Your task to perform on an android device: Show the shopping cart on costco. Search for duracell triple a on costco, select the first entry, add it to the cart, then select checkout. Image 0: 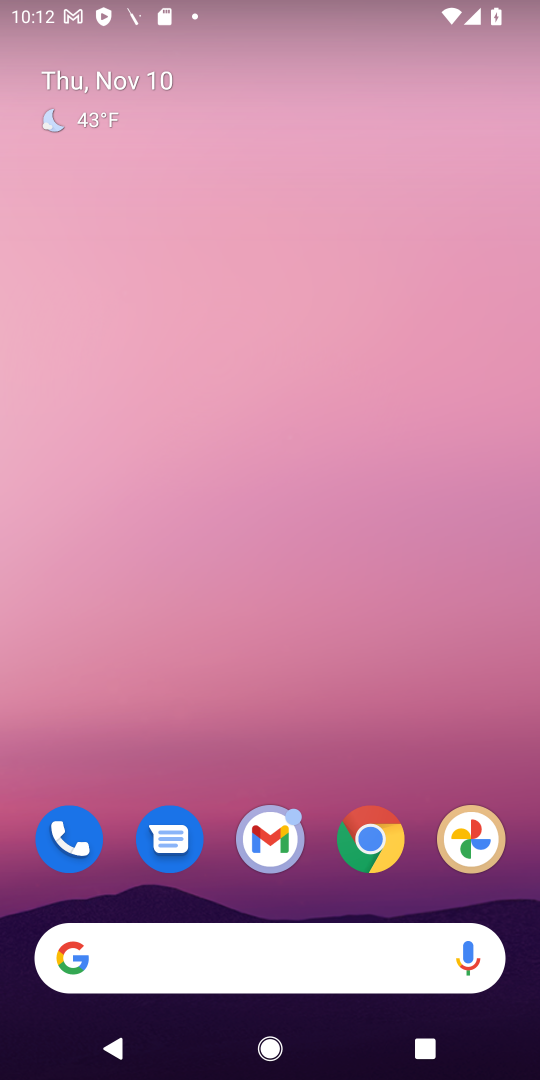
Step 0: click (373, 832)
Your task to perform on an android device: Show the shopping cart on costco. Search for duracell triple a on costco, select the first entry, add it to the cart, then select checkout. Image 1: 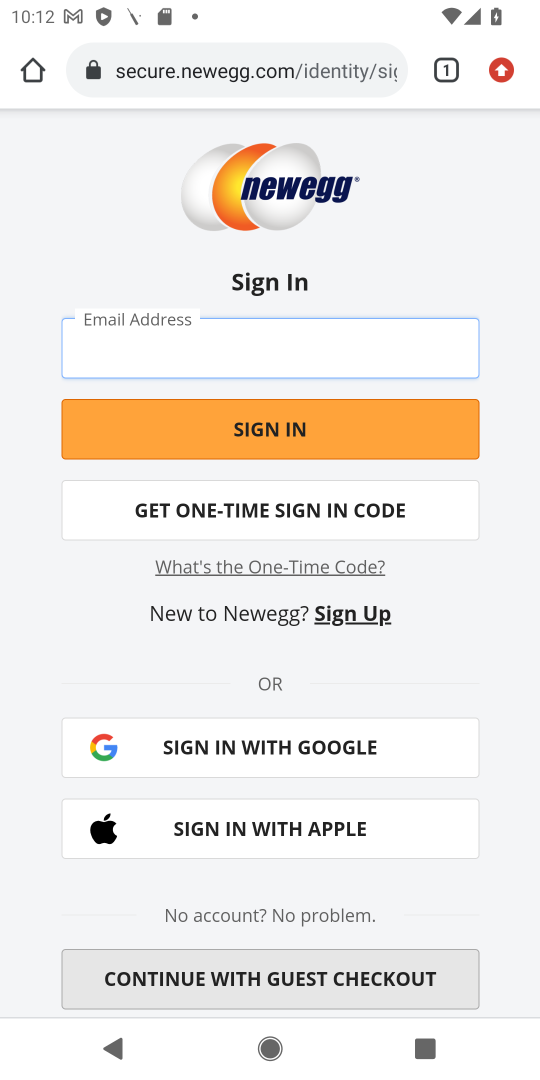
Step 1: click (294, 76)
Your task to perform on an android device: Show the shopping cart on costco. Search for duracell triple a on costco, select the first entry, add it to the cart, then select checkout. Image 2: 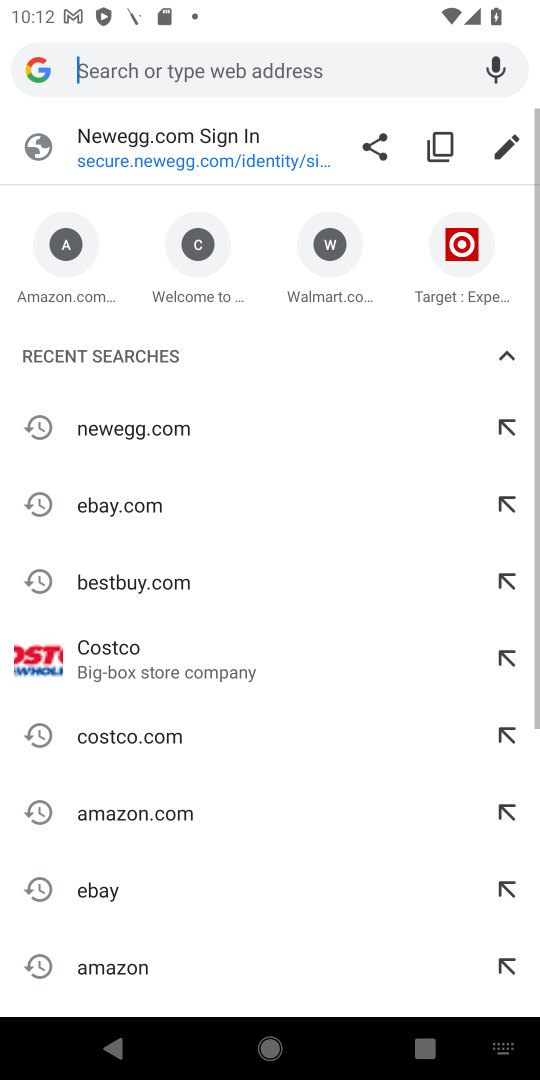
Step 2: click (121, 645)
Your task to perform on an android device: Show the shopping cart on costco. Search for duracell triple a on costco, select the first entry, add it to the cart, then select checkout. Image 3: 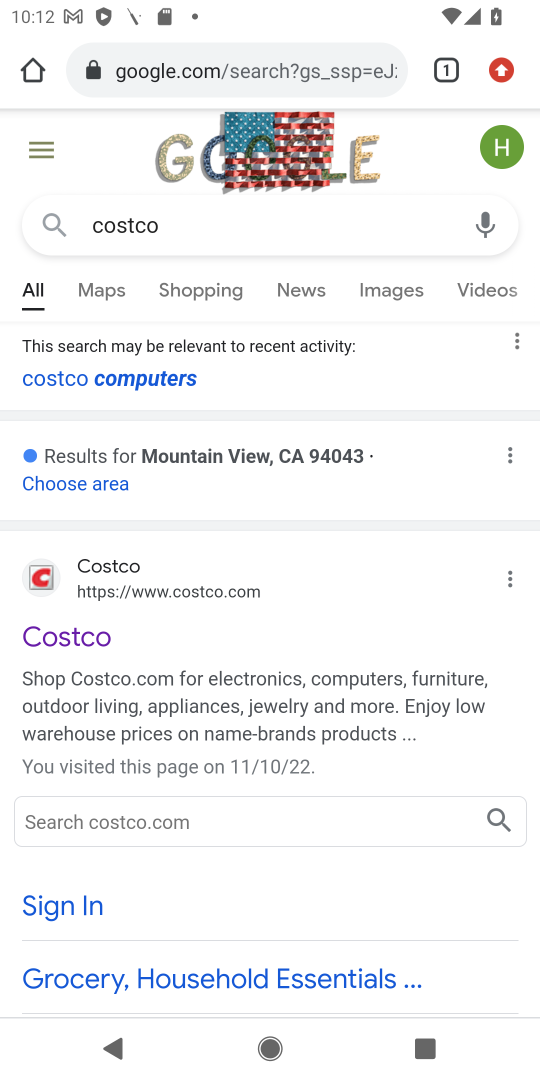
Step 3: click (196, 586)
Your task to perform on an android device: Show the shopping cart on costco. Search for duracell triple a on costco, select the first entry, add it to the cart, then select checkout. Image 4: 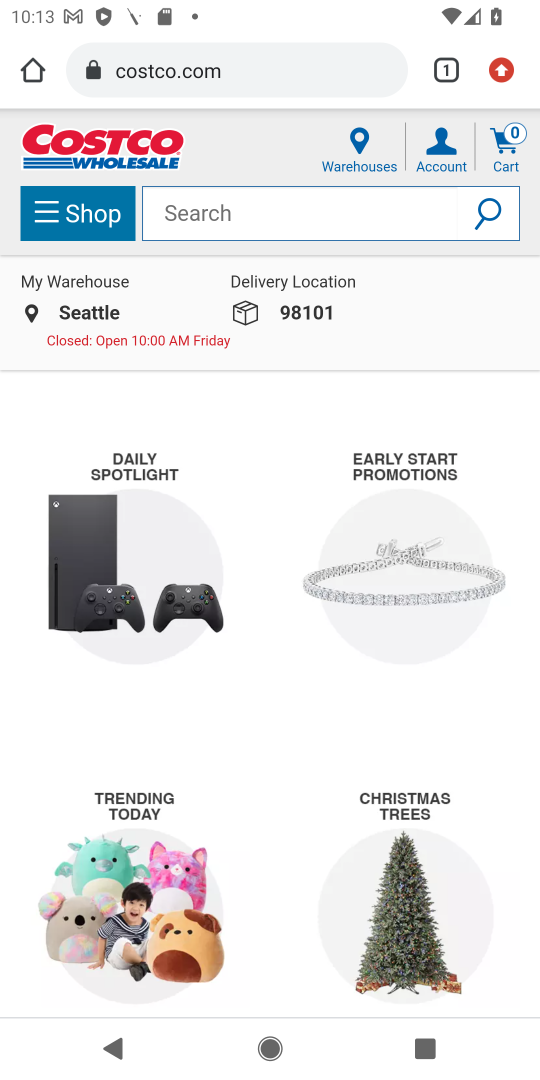
Step 4: click (288, 209)
Your task to perform on an android device: Show the shopping cart on costco. Search for duracell triple a on costco, select the first entry, add it to the cart, then select checkout. Image 5: 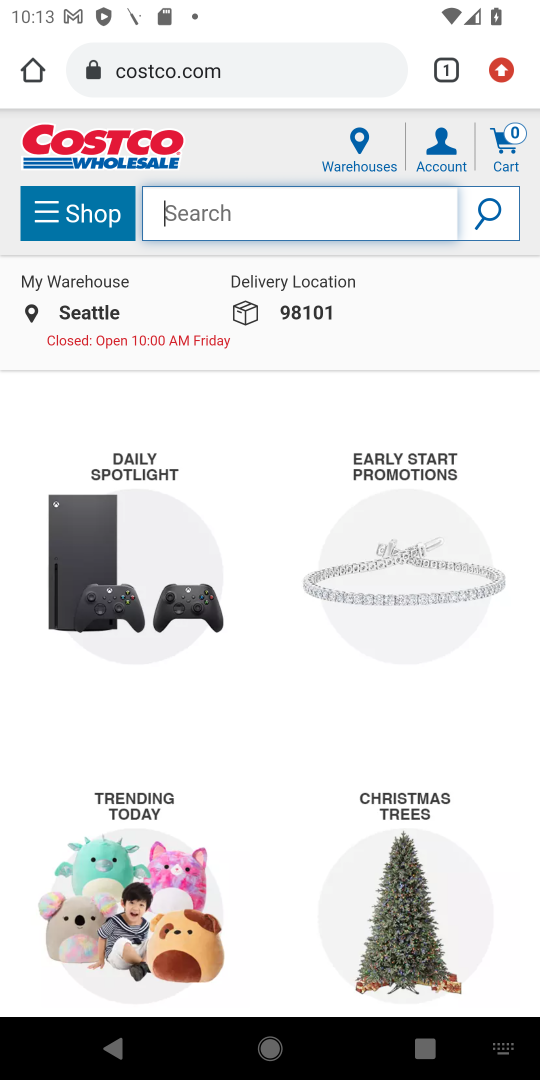
Step 5: press enter
Your task to perform on an android device: Show the shopping cart on costco. Search for duracell triple a on costco, select the first entry, add it to the cart, then select checkout. Image 6: 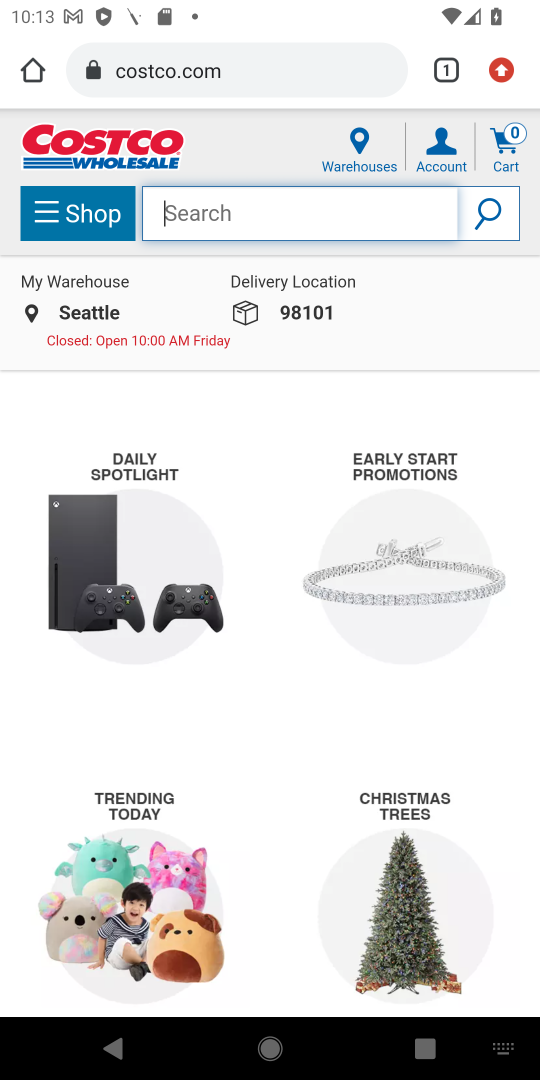
Step 6: type "duracell triple a"
Your task to perform on an android device: Show the shopping cart on costco. Search for duracell triple a on costco, select the first entry, add it to the cart, then select checkout. Image 7: 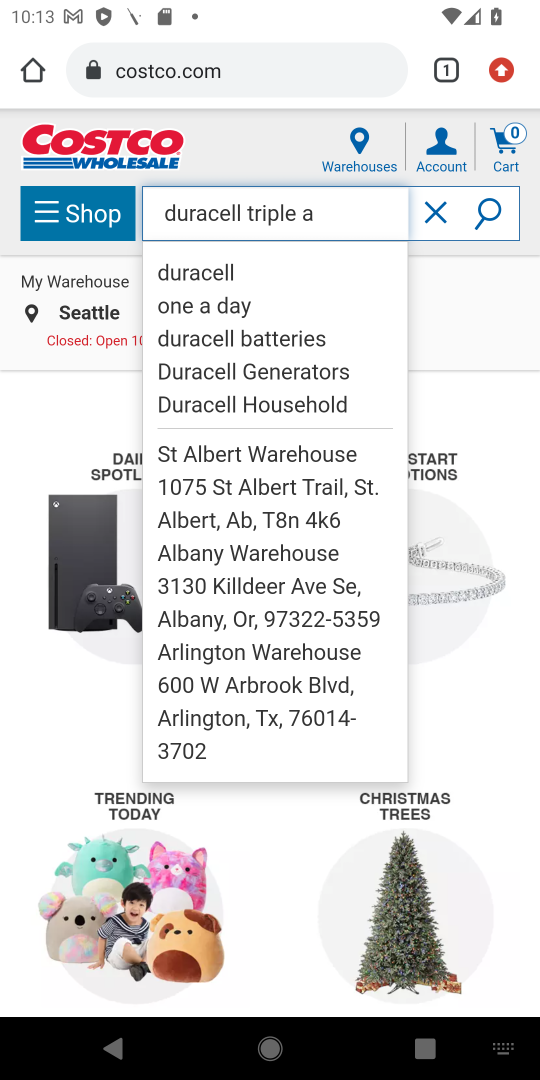
Step 7: click (447, 286)
Your task to perform on an android device: Show the shopping cart on costco. Search for duracell triple a on costco, select the first entry, add it to the cart, then select checkout. Image 8: 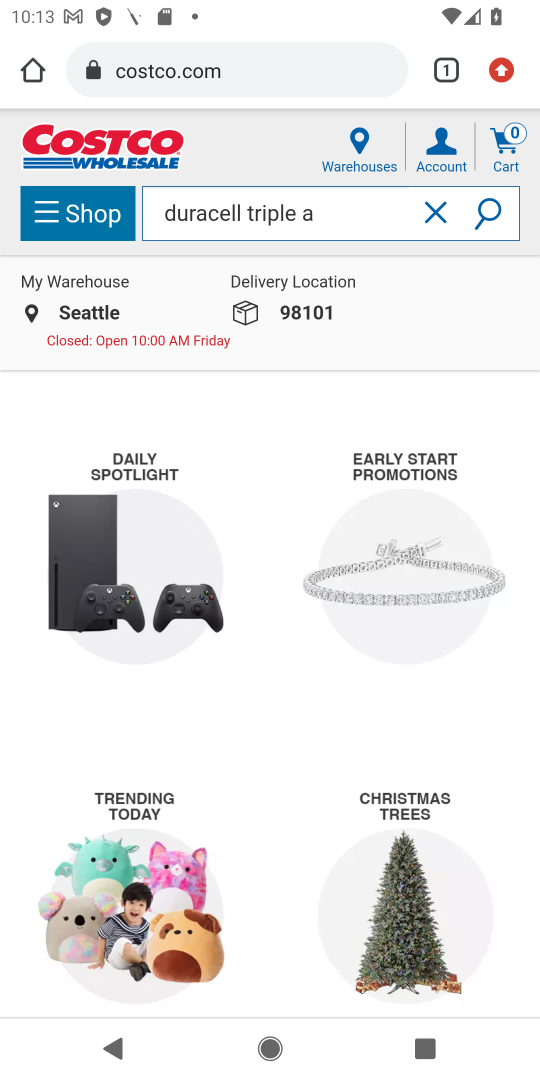
Step 8: click (447, 286)
Your task to perform on an android device: Show the shopping cart on costco. Search for duracell triple a on costco, select the first entry, add it to the cart, then select checkout. Image 9: 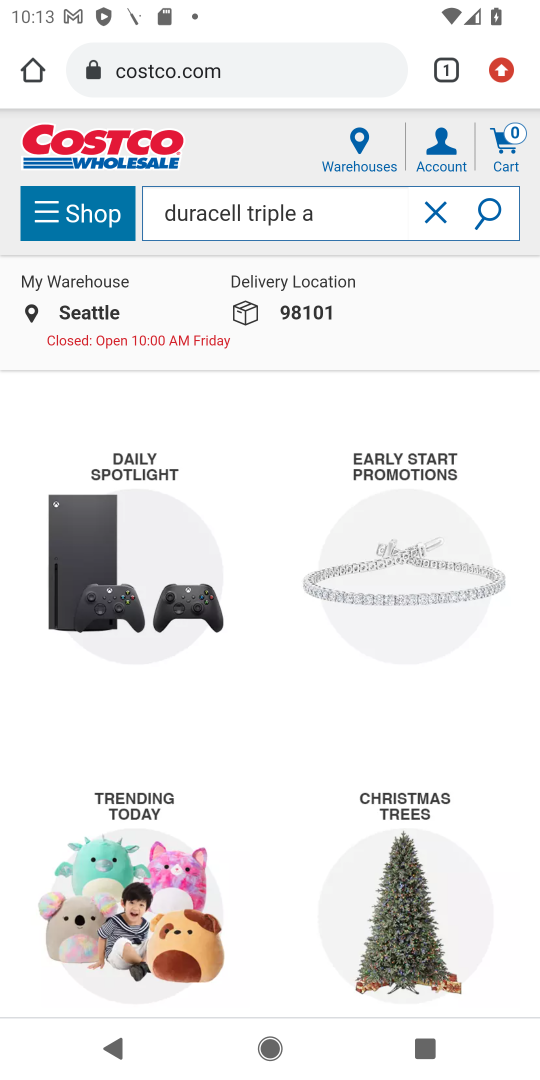
Step 9: task complete